Your task to perform on an android device: What is the news today? Image 0: 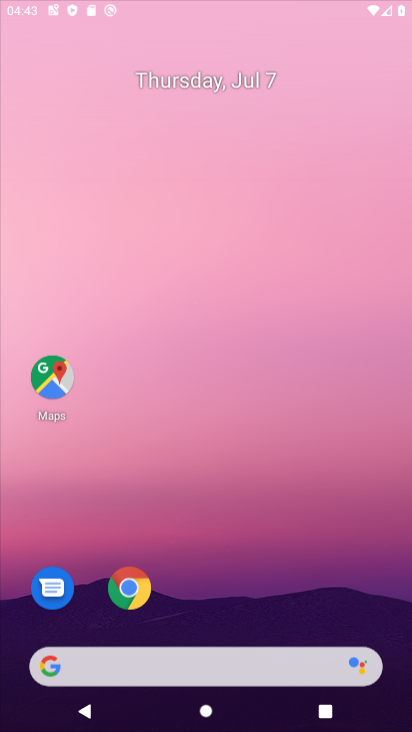
Step 0: press home button
Your task to perform on an android device: What is the news today? Image 1: 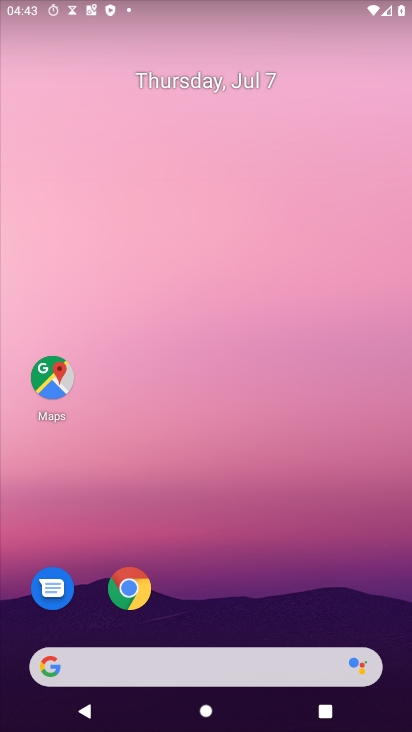
Step 1: click (44, 669)
Your task to perform on an android device: What is the news today? Image 2: 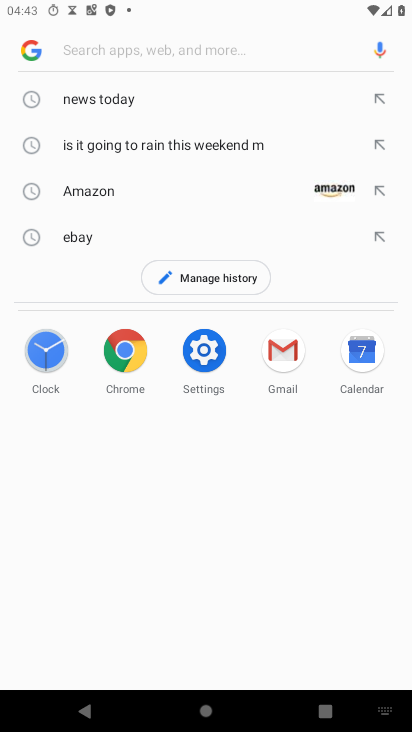
Step 2: click (113, 99)
Your task to perform on an android device: What is the news today? Image 3: 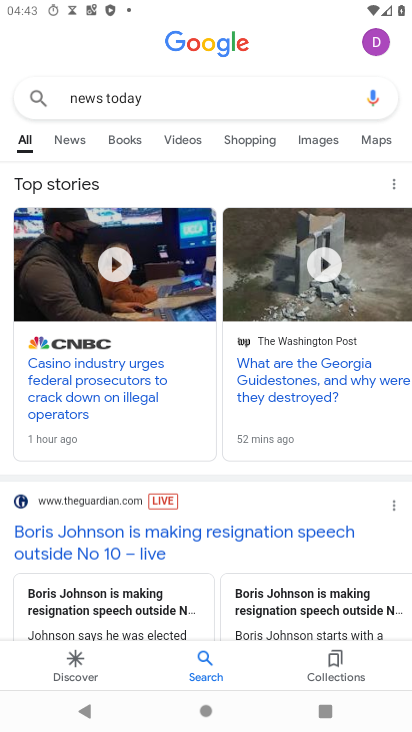
Step 3: task complete